Your task to perform on an android device: change the clock style Image 0: 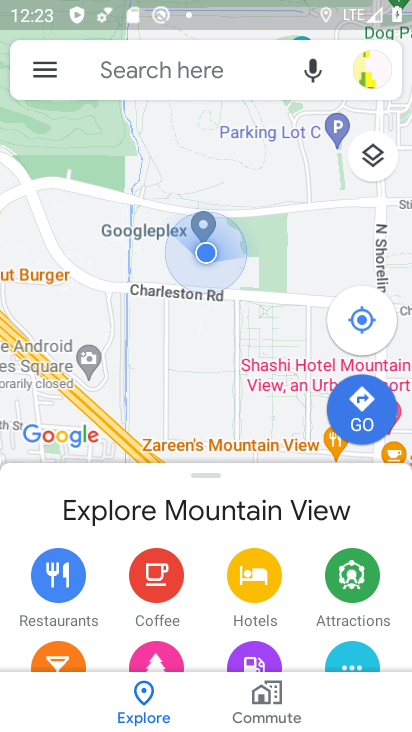
Step 0: press home button
Your task to perform on an android device: change the clock style Image 1: 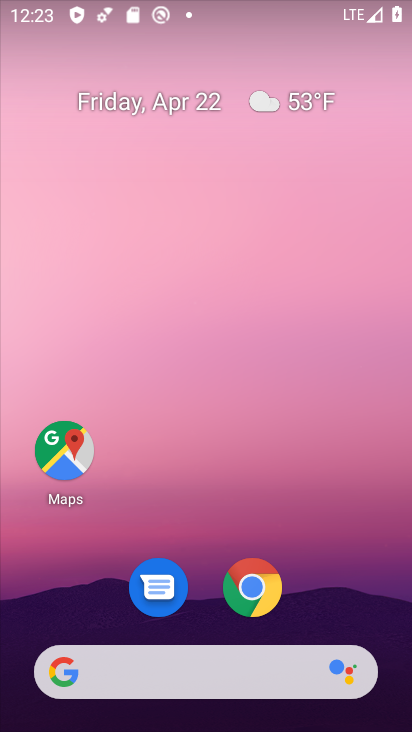
Step 1: drag from (190, 635) to (245, 228)
Your task to perform on an android device: change the clock style Image 2: 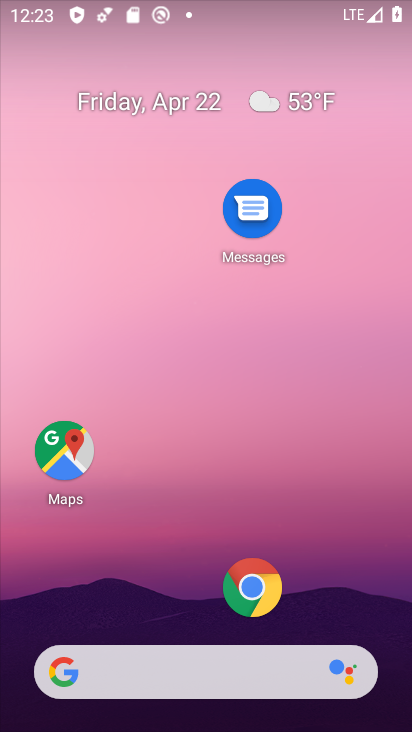
Step 2: drag from (162, 636) to (178, 194)
Your task to perform on an android device: change the clock style Image 3: 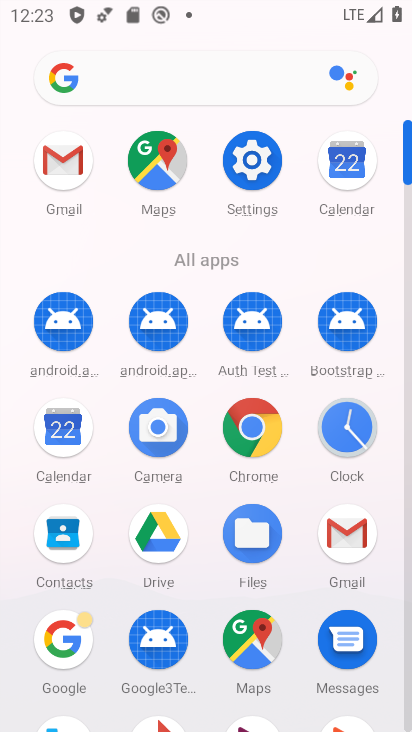
Step 3: click (354, 428)
Your task to perform on an android device: change the clock style Image 4: 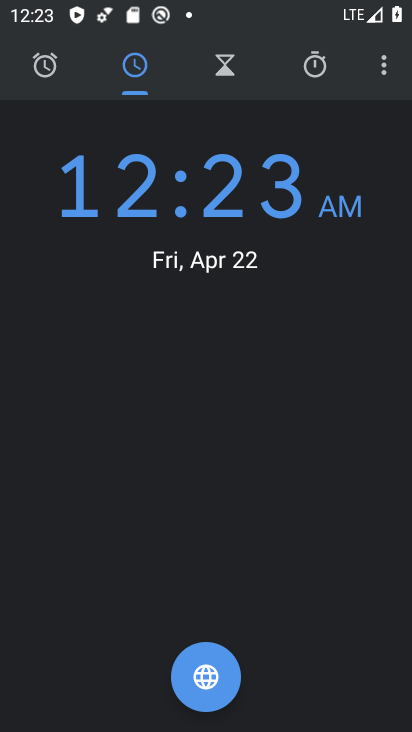
Step 4: click (386, 59)
Your task to perform on an android device: change the clock style Image 5: 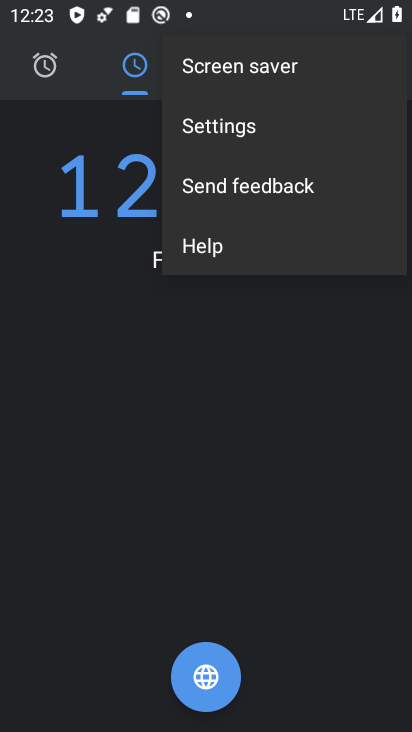
Step 5: click (235, 130)
Your task to perform on an android device: change the clock style Image 6: 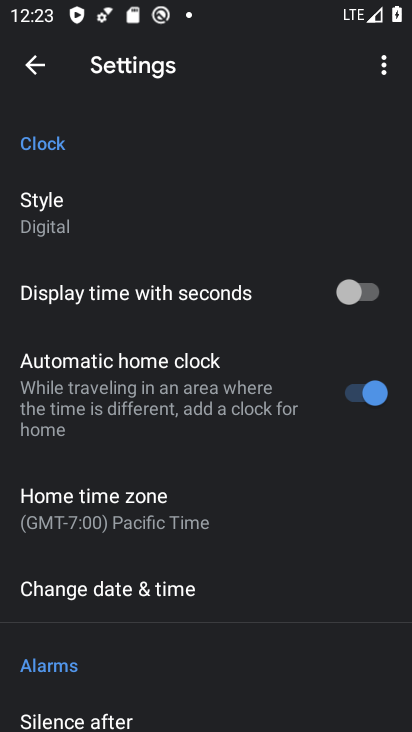
Step 6: click (77, 220)
Your task to perform on an android device: change the clock style Image 7: 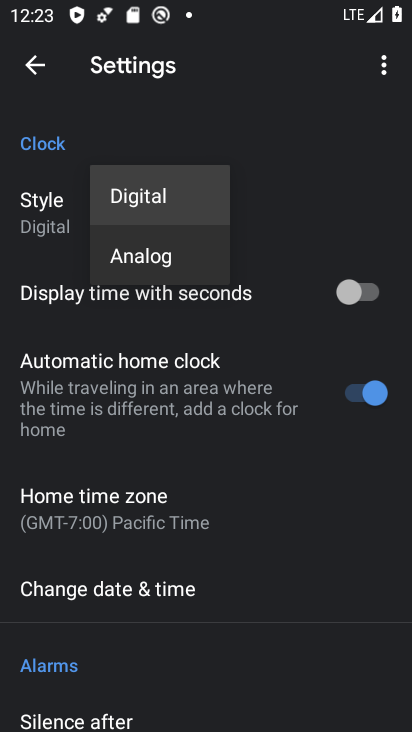
Step 7: click (125, 254)
Your task to perform on an android device: change the clock style Image 8: 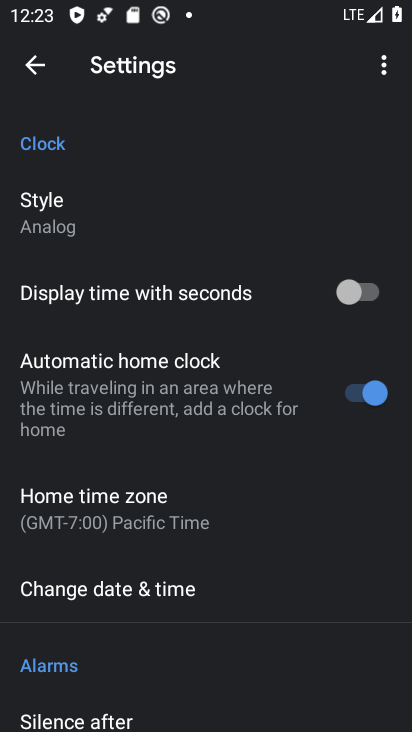
Step 8: task complete